Your task to perform on an android device: When is my next meeting? Image 0: 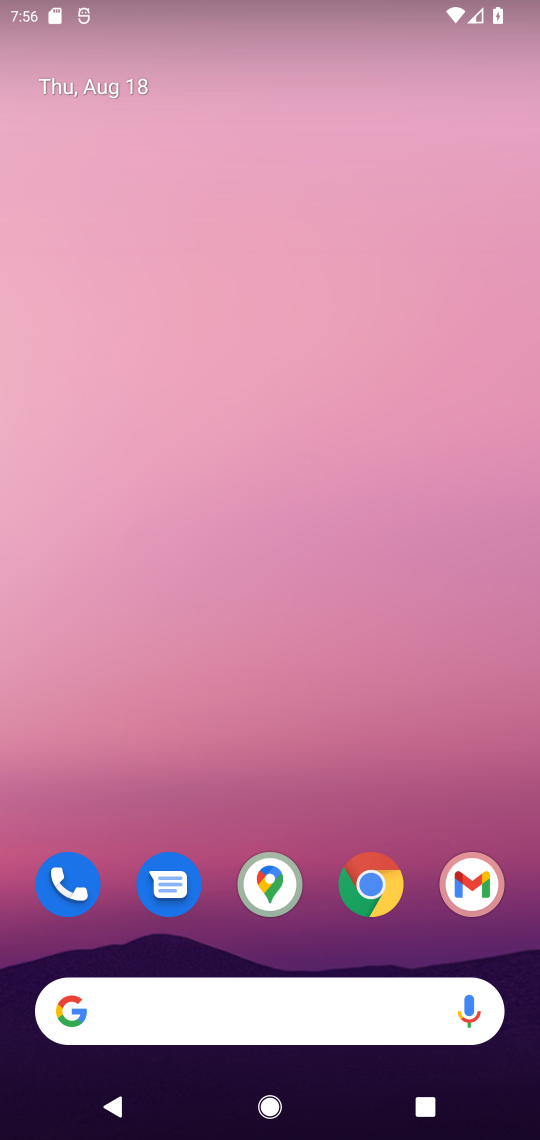
Step 0: click (68, 80)
Your task to perform on an android device: When is my next meeting? Image 1: 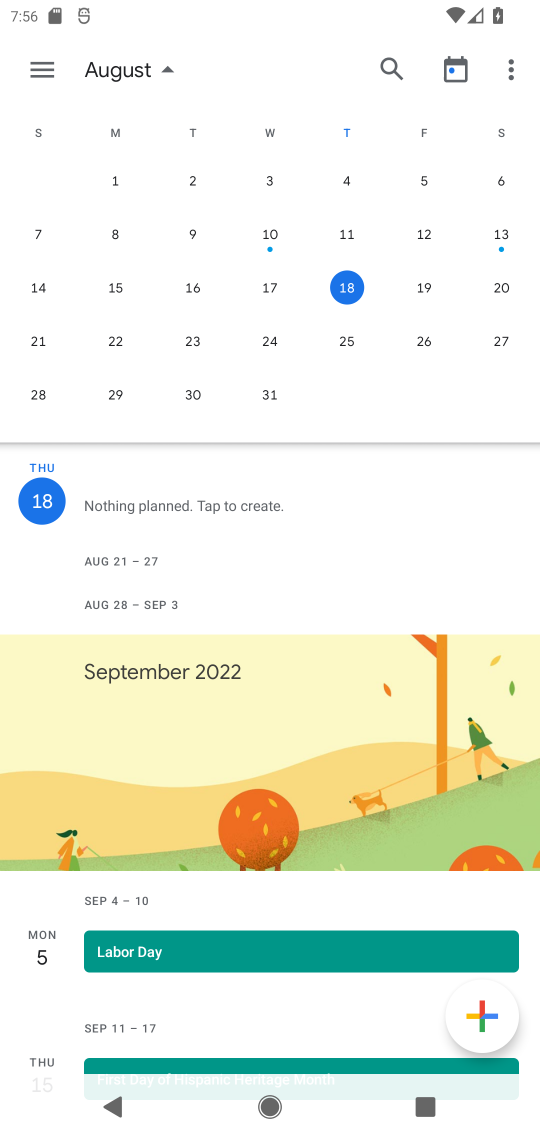
Step 1: task complete